Your task to perform on an android device: Go to notification settings Image 0: 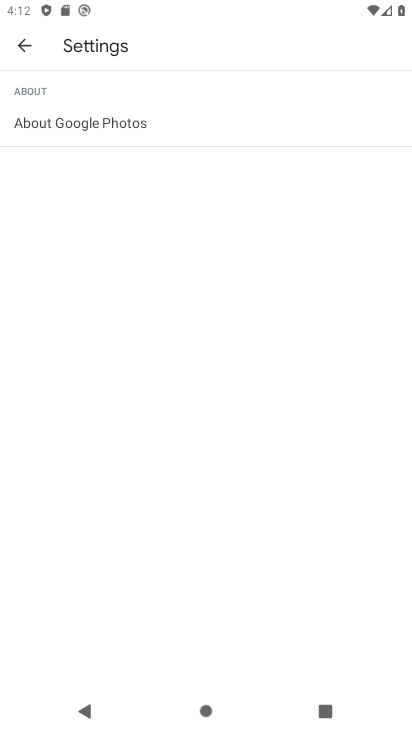
Step 0: press back button
Your task to perform on an android device: Go to notification settings Image 1: 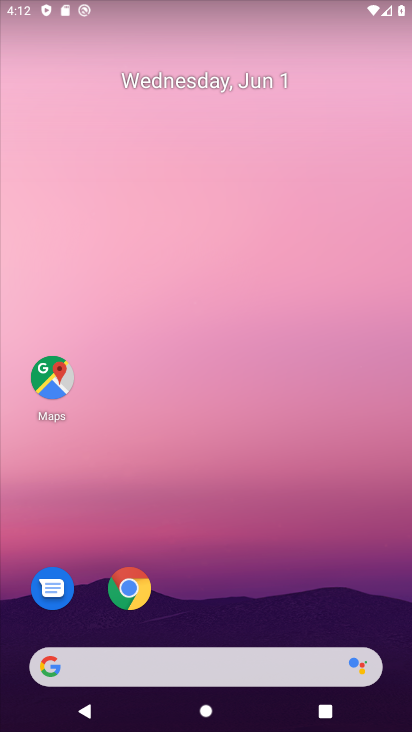
Step 1: drag from (235, 575) to (219, 112)
Your task to perform on an android device: Go to notification settings Image 2: 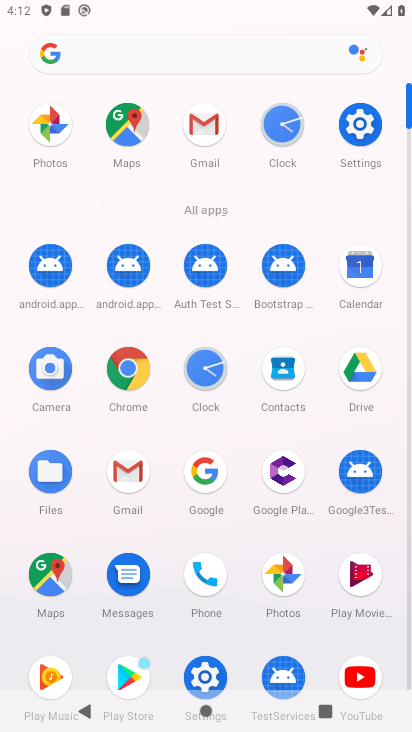
Step 2: click (361, 121)
Your task to perform on an android device: Go to notification settings Image 3: 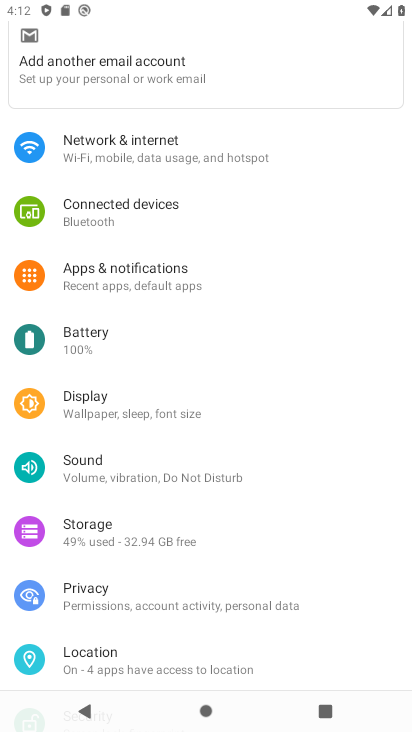
Step 3: click (129, 293)
Your task to perform on an android device: Go to notification settings Image 4: 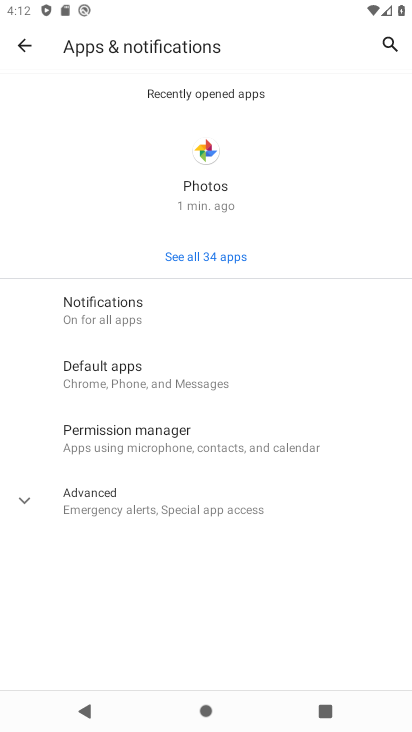
Step 4: click (120, 313)
Your task to perform on an android device: Go to notification settings Image 5: 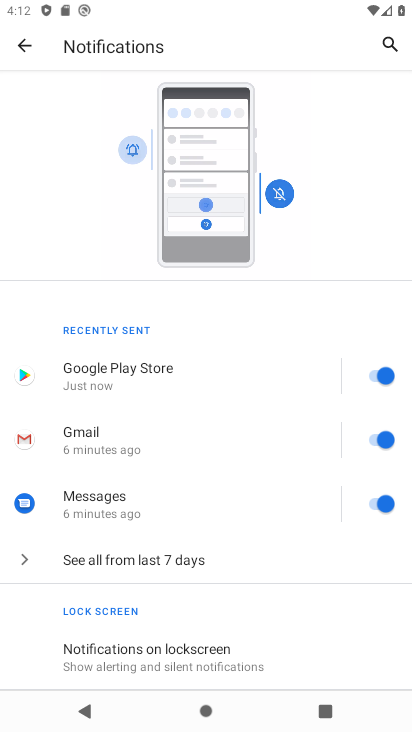
Step 5: task complete